Your task to perform on an android device: Go to Yahoo.com Image 0: 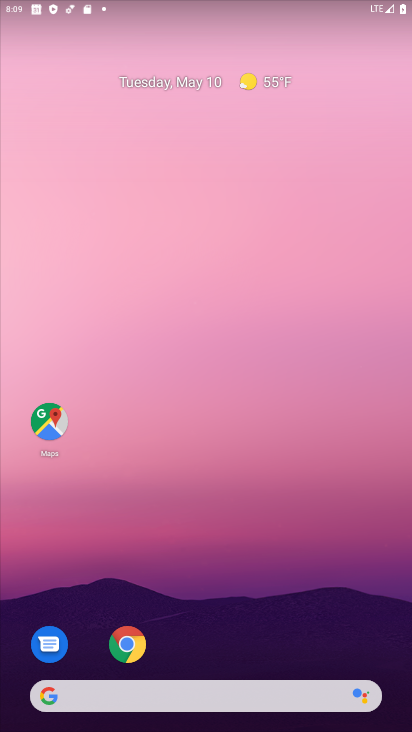
Step 0: drag from (258, 569) to (264, 8)
Your task to perform on an android device: Go to Yahoo.com Image 1: 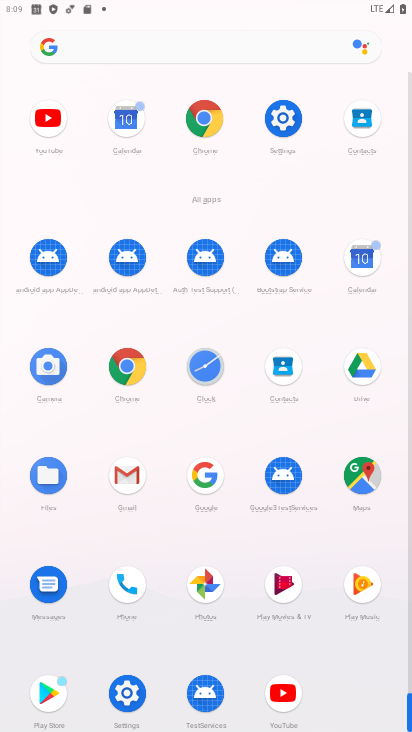
Step 1: click (204, 144)
Your task to perform on an android device: Go to Yahoo.com Image 2: 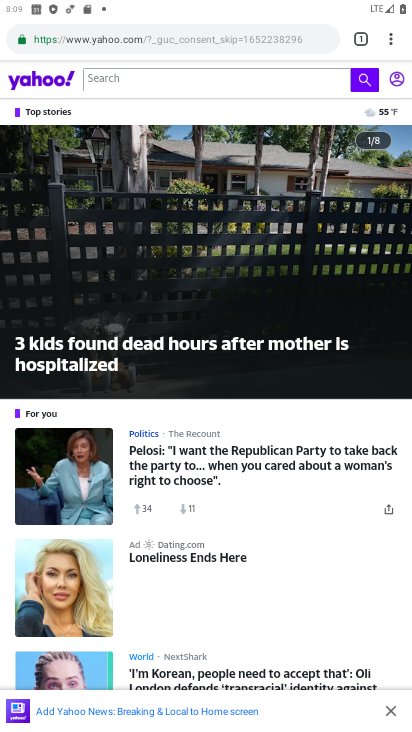
Step 2: task complete